Your task to perform on an android device: Go to wifi settings Image 0: 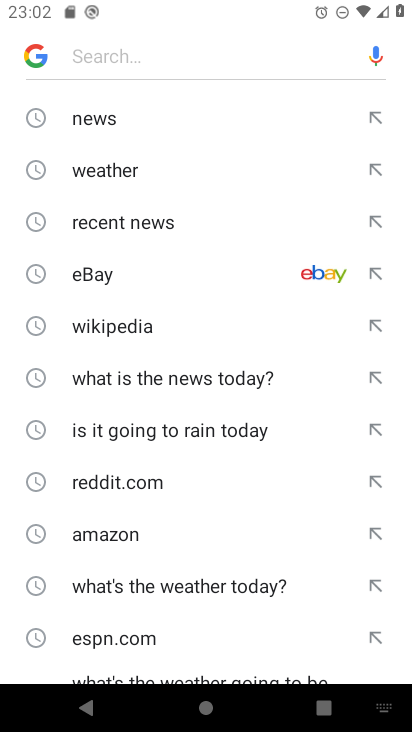
Step 0: press home button
Your task to perform on an android device: Go to wifi settings Image 1: 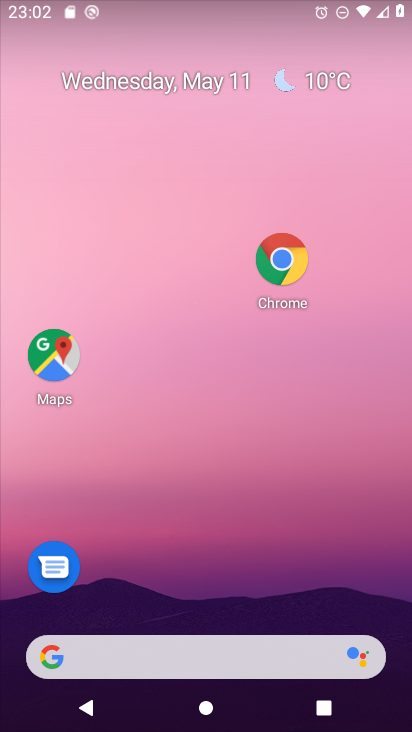
Step 1: drag from (132, 646) to (322, 74)
Your task to perform on an android device: Go to wifi settings Image 2: 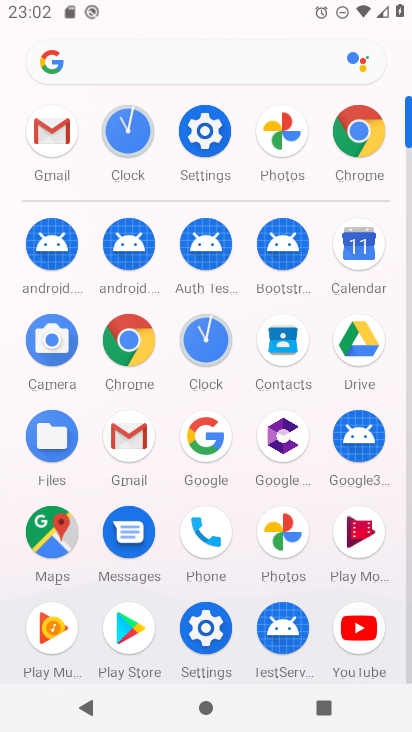
Step 2: click (209, 142)
Your task to perform on an android device: Go to wifi settings Image 3: 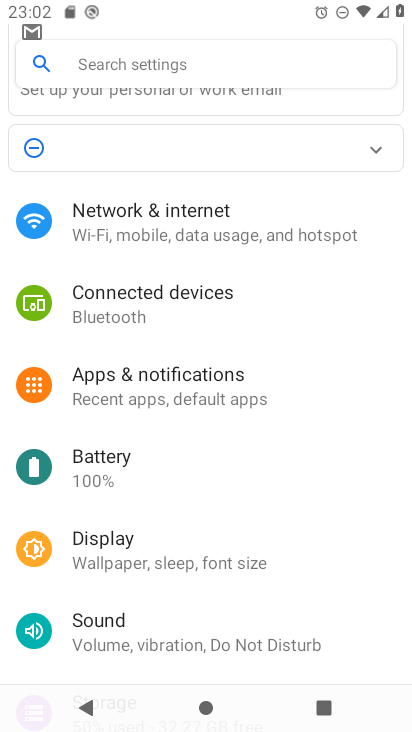
Step 3: click (181, 217)
Your task to perform on an android device: Go to wifi settings Image 4: 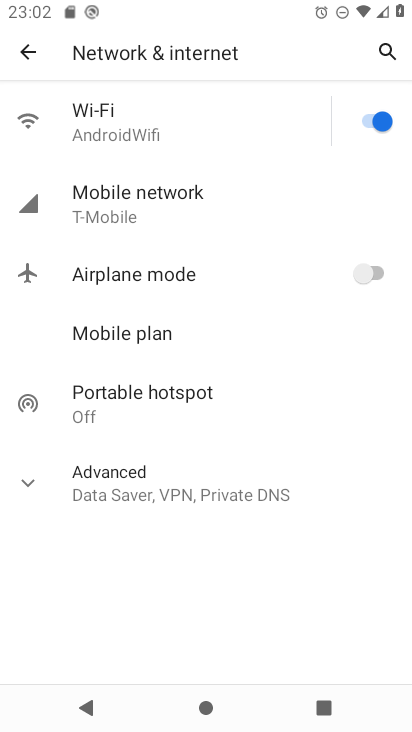
Step 4: click (115, 128)
Your task to perform on an android device: Go to wifi settings Image 5: 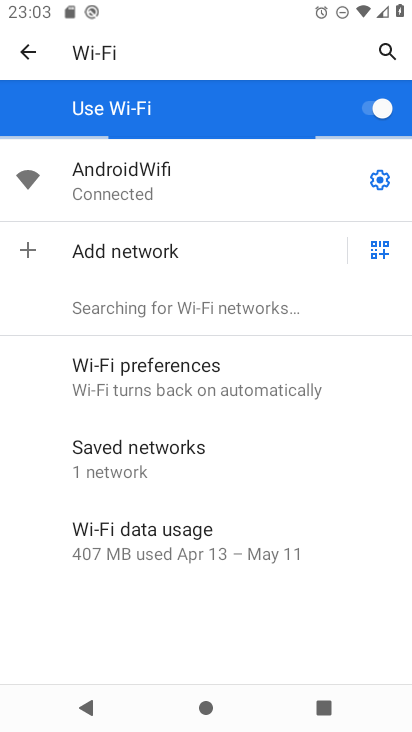
Step 5: task complete